Your task to perform on an android device: turn off improve location accuracy Image 0: 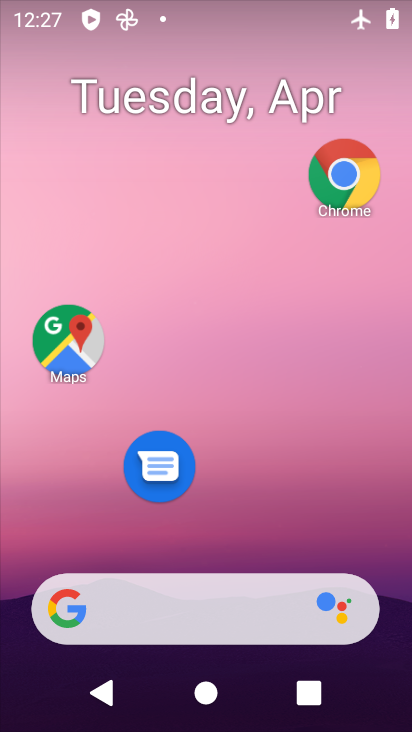
Step 0: drag from (298, 487) to (335, 70)
Your task to perform on an android device: turn off improve location accuracy Image 1: 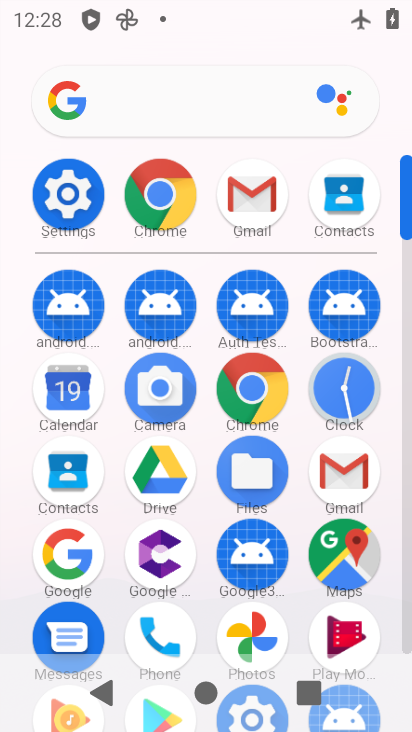
Step 1: click (83, 216)
Your task to perform on an android device: turn off improve location accuracy Image 2: 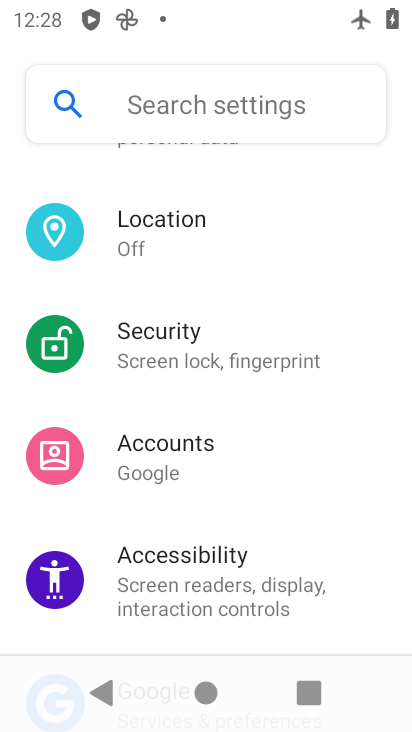
Step 2: drag from (173, 505) to (176, 596)
Your task to perform on an android device: turn off improve location accuracy Image 3: 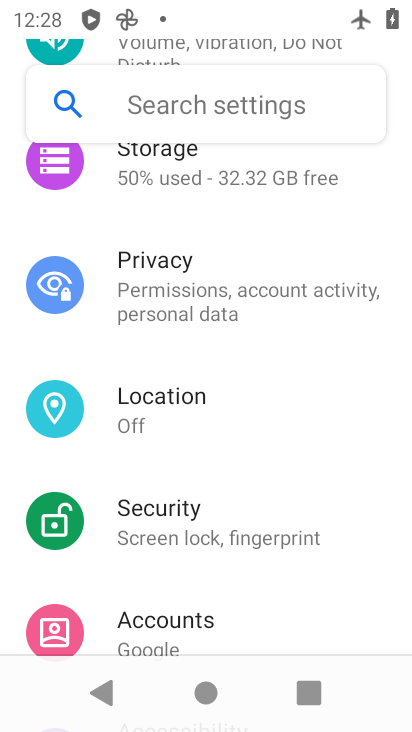
Step 3: click (181, 422)
Your task to perform on an android device: turn off improve location accuracy Image 4: 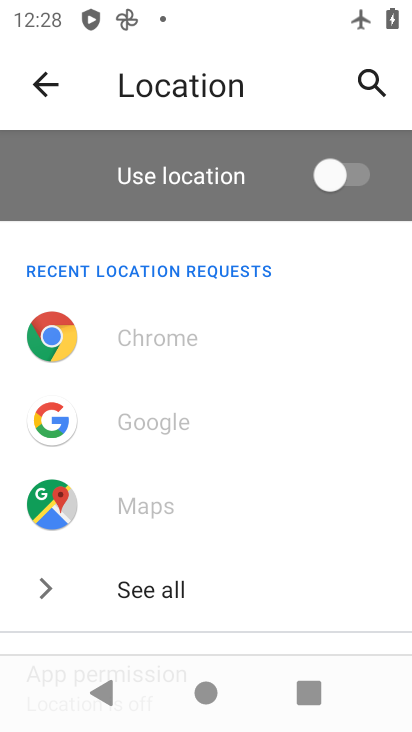
Step 4: drag from (220, 524) to (230, 141)
Your task to perform on an android device: turn off improve location accuracy Image 5: 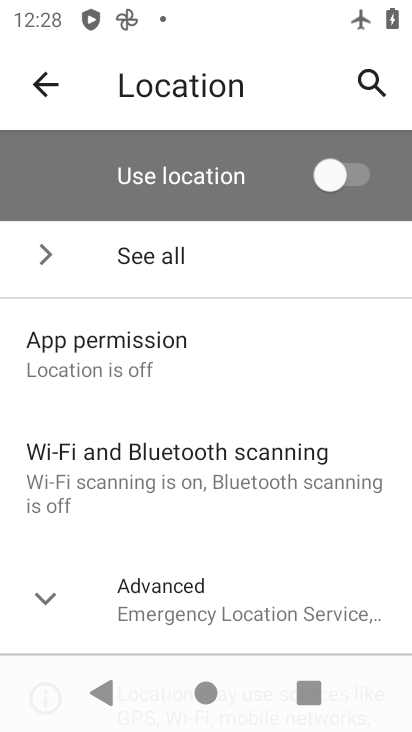
Step 5: click (190, 601)
Your task to perform on an android device: turn off improve location accuracy Image 6: 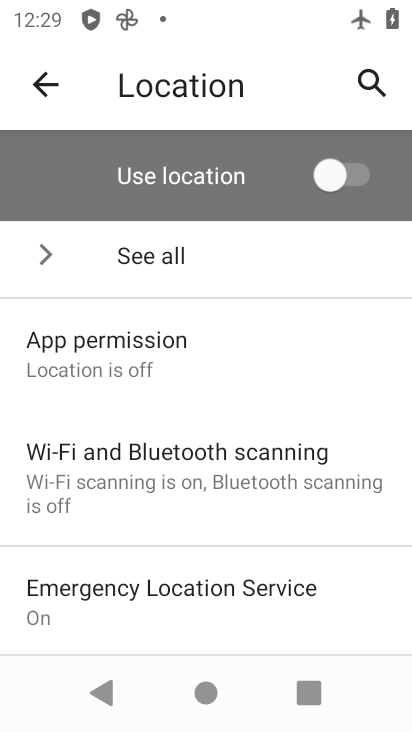
Step 6: task complete